Your task to perform on an android device: see tabs open on other devices in the chrome app Image 0: 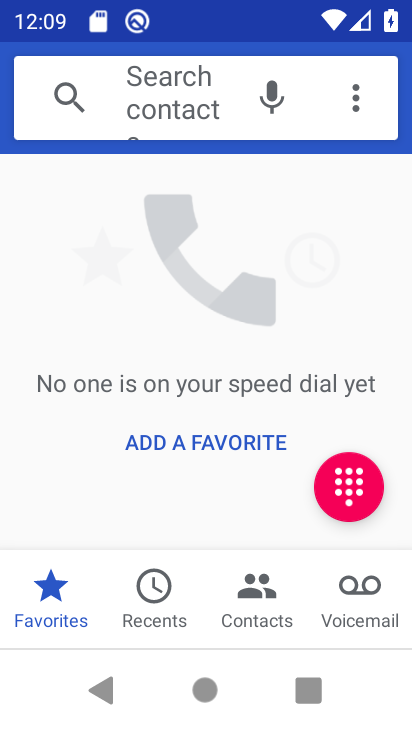
Step 0: press home button
Your task to perform on an android device: see tabs open on other devices in the chrome app Image 1: 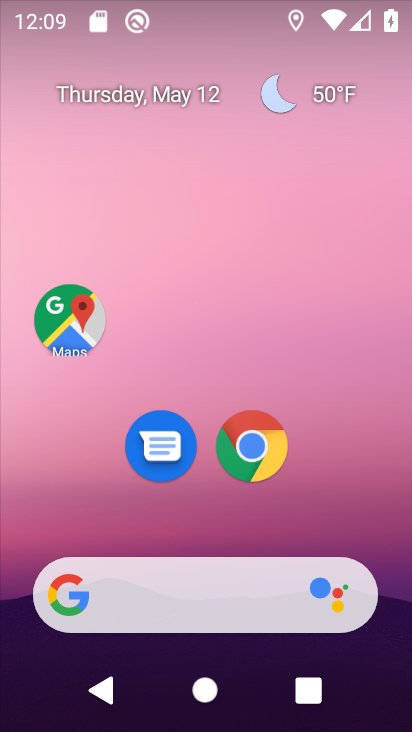
Step 1: click (261, 455)
Your task to perform on an android device: see tabs open on other devices in the chrome app Image 2: 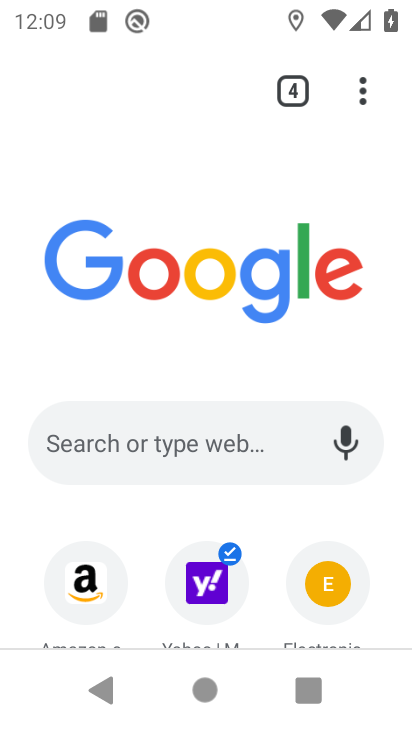
Step 2: click (356, 84)
Your task to perform on an android device: see tabs open on other devices in the chrome app Image 3: 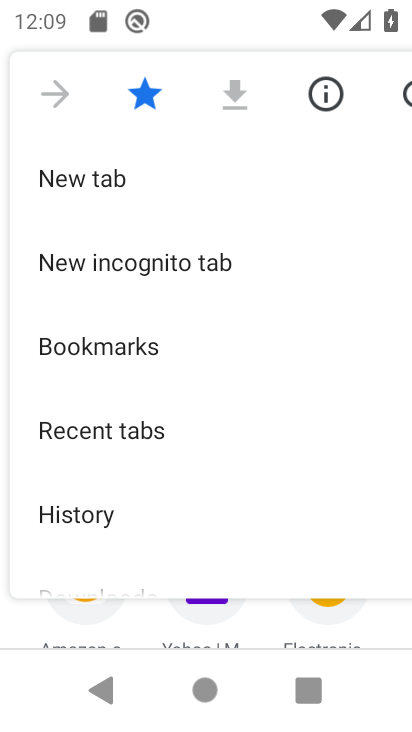
Step 3: click (135, 435)
Your task to perform on an android device: see tabs open on other devices in the chrome app Image 4: 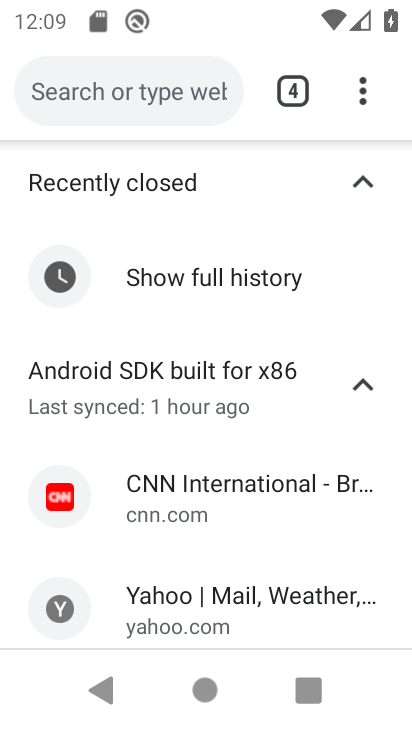
Step 4: task complete